Your task to perform on an android device: toggle javascript in the chrome app Image 0: 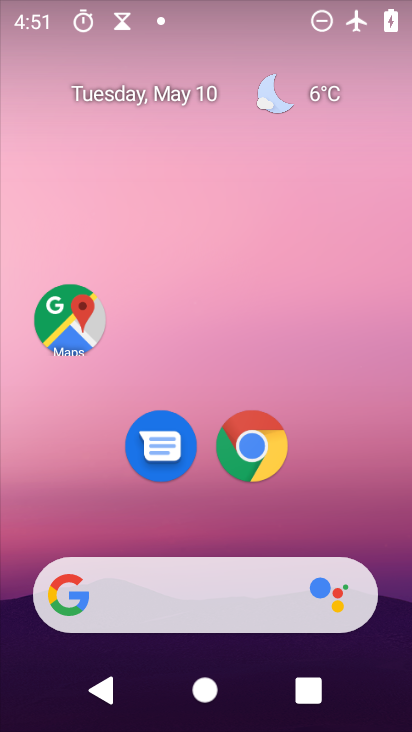
Step 0: click (249, 471)
Your task to perform on an android device: toggle javascript in the chrome app Image 1: 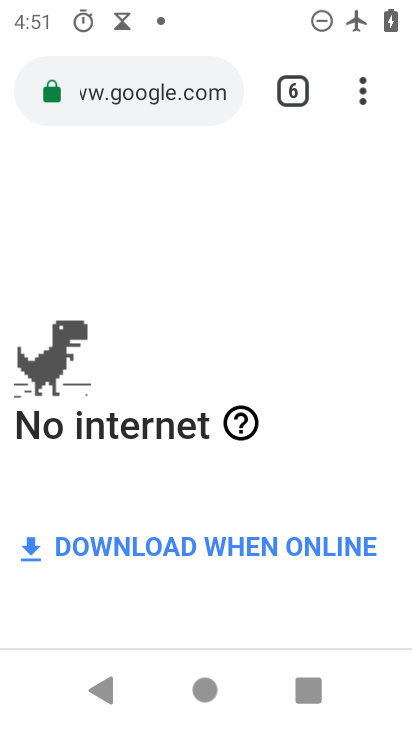
Step 1: click (355, 93)
Your task to perform on an android device: toggle javascript in the chrome app Image 2: 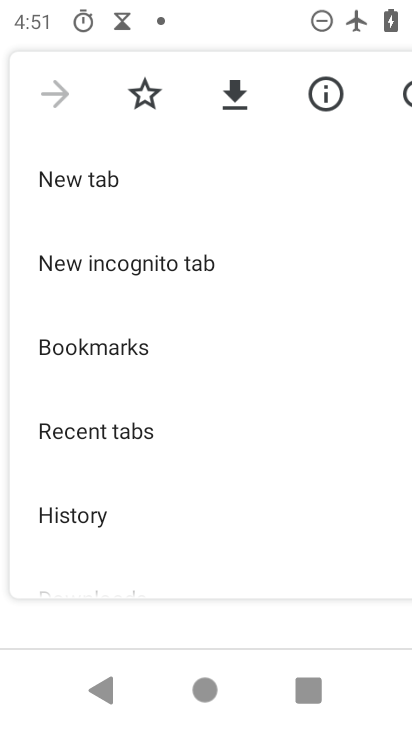
Step 2: drag from (209, 476) to (199, 146)
Your task to perform on an android device: toggle javascript in the chrome app Image 3: 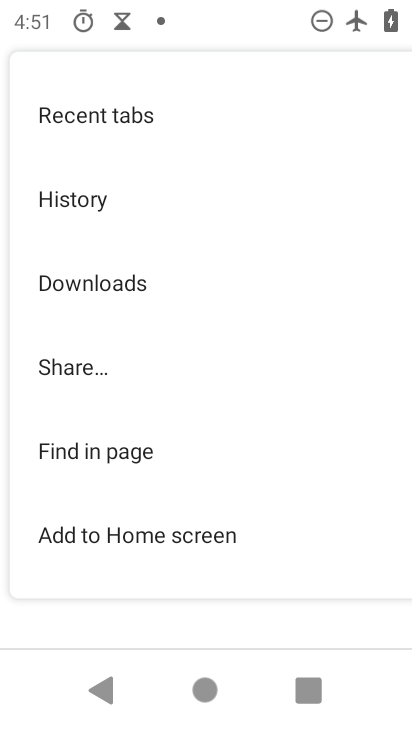
Step 3: drag from (188, 454) to (178, 254)
Your task to perform on an android device: toggle javascript in the chrome app Image 4: 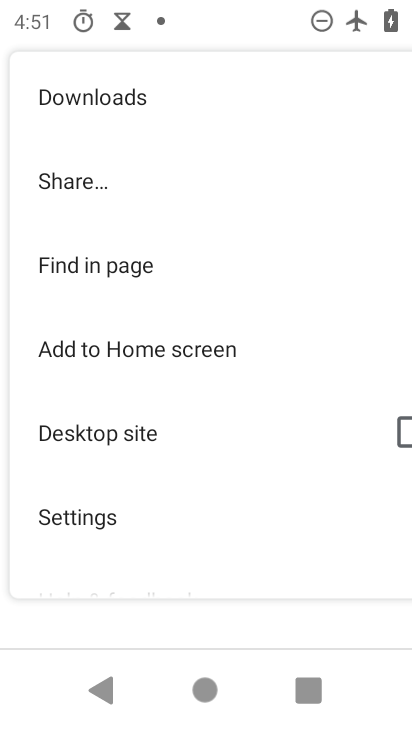
Step 4: click (123, 500)
Your task to perform on an android device: toggle javascript in the chrome app Image 5: 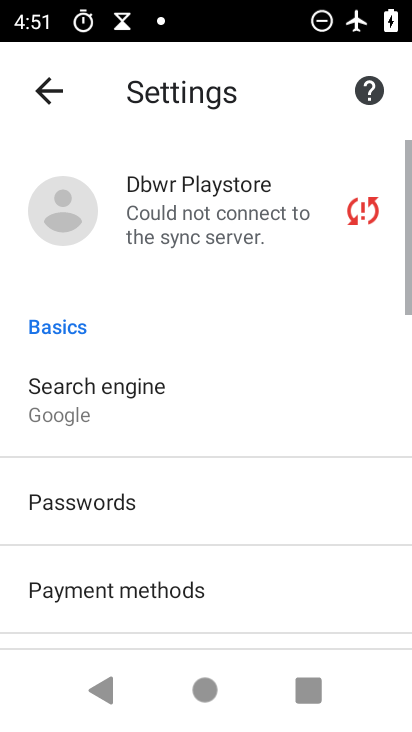
Step 5: drag from (180, 510) to (201, 173)
Your task to perform on an android device: toggle javascript in the chrome app Image 6: 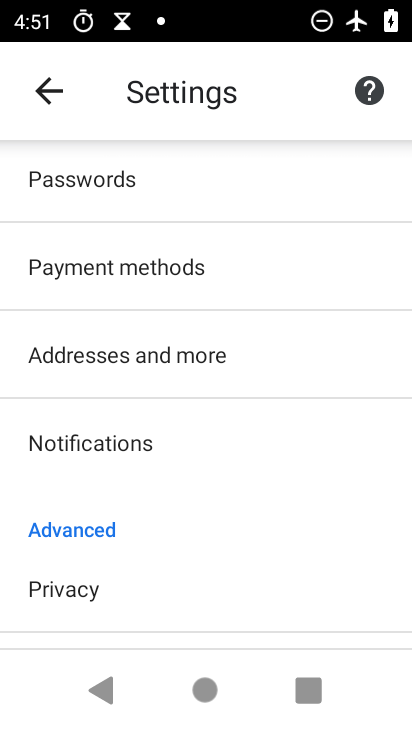
Step 6: drag from (173, 485) to (176, 220)
Your task to perform on an android device: toggle javascript in the chrome app Image 7: 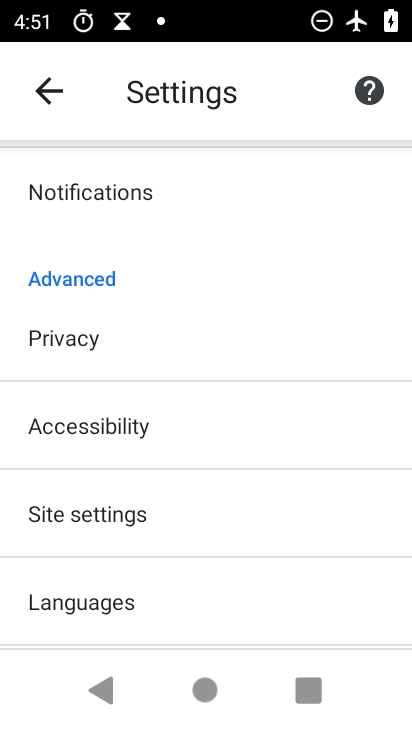
Step 7: click (133, 511)
Your task to perform on an android device: toggle javascript in the chrome app Image 8: 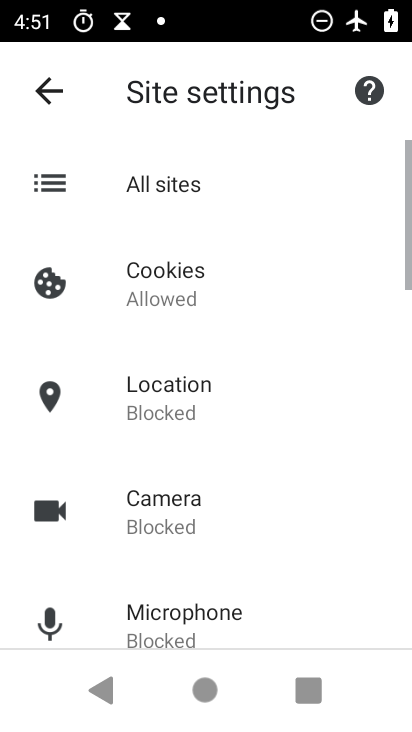
Step 8: drag from (202, 581) to (199, 213)
Your task to perform on an android device: toggle javascript in the chrome app Image 9: 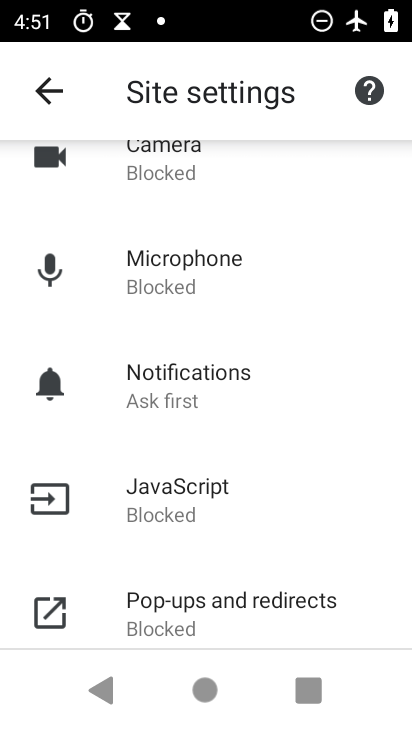
Step 9: click (201, 507)
Your task to perform on an android device: toggle javascript in the chrome app Image 10: 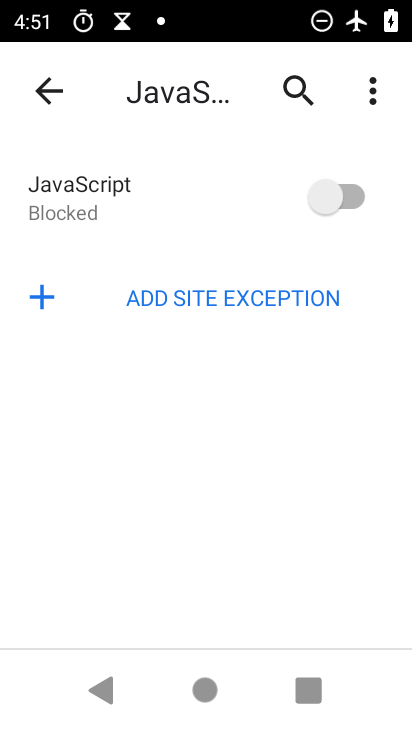
Step 10: click (336, 197)
Your task to perform on an android device: toggle javascript in the chrome app Image 11: 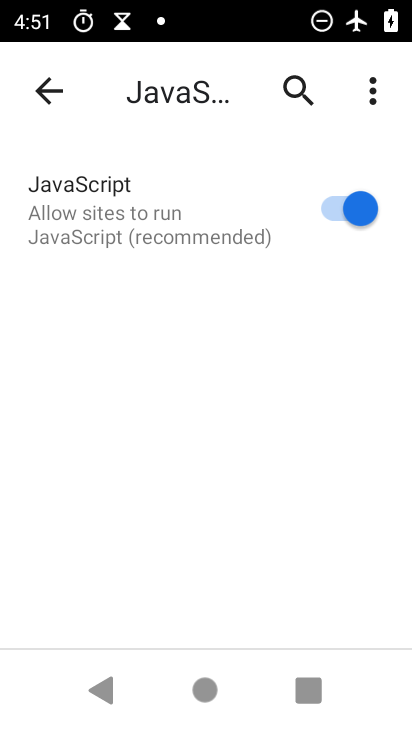
Step 11: task complete